Your task to perform on an android device: open a new tab in the chrome app Image 0: 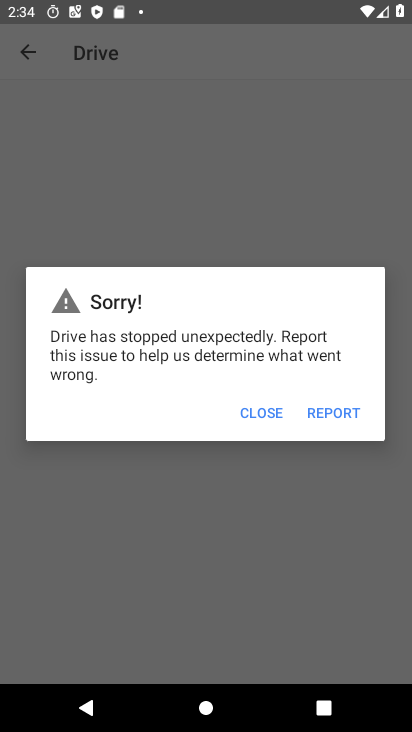
Step 0: press home button
Your task to perform on an android device: open a new tab in the chrome app Image 1: 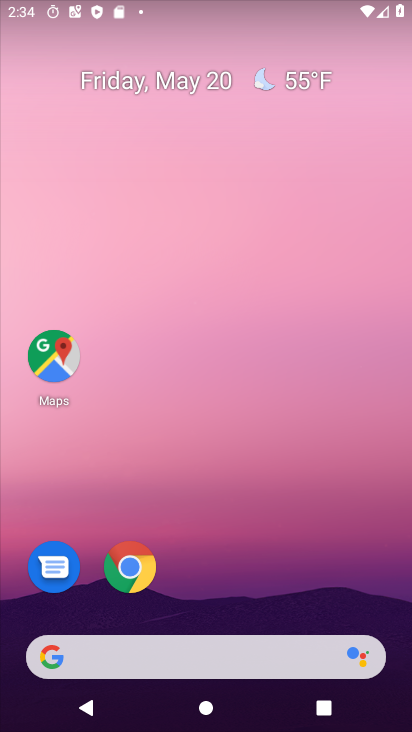
Step 1: drag from (175, 632) to (202, 331)
Your task to perform on an android device: open a new tab in the chrome app Image 2: 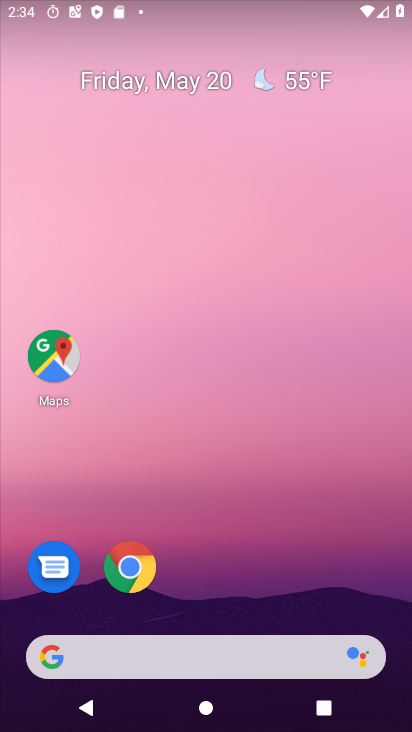
Step 2: drag from (201, 465) to (158, 76)
Your task to perform on an android device: open a new tab in the chrome app Image 3: 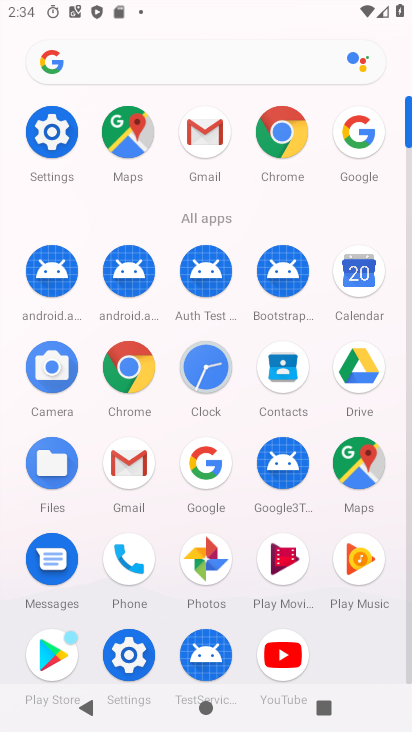
Step 3: click (288, 137)
Your task to perform on an android device: open a new tab in the chrome app Image 4: 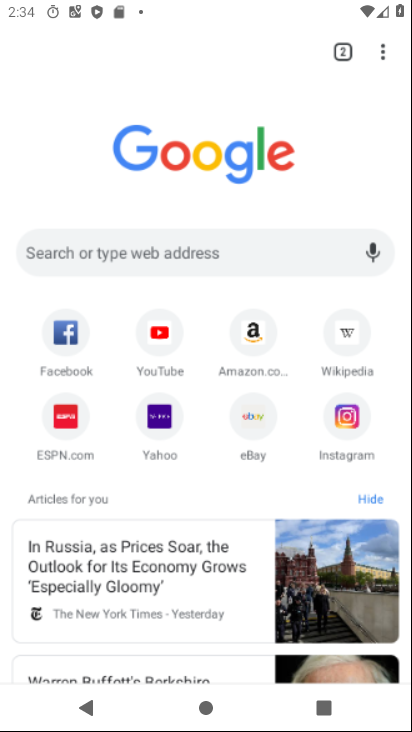
Step 4: click (375, 52)
Your task to perform on an android device: open a new tab in the chrome app Image 5: 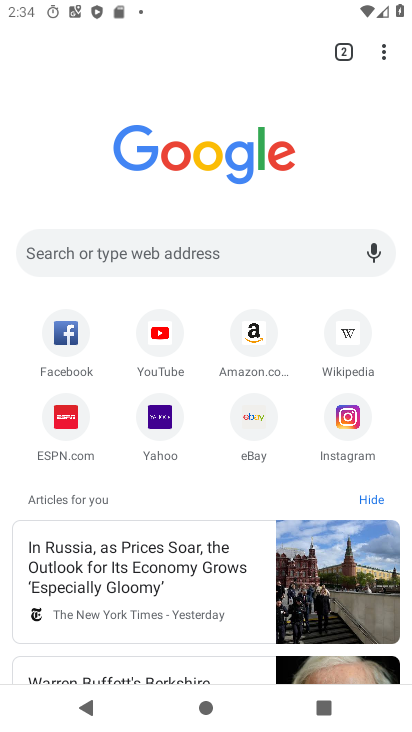
Step 5: click (391, 60)
Your task to perform on an android device: open a new tab in the chrome app Image 6: 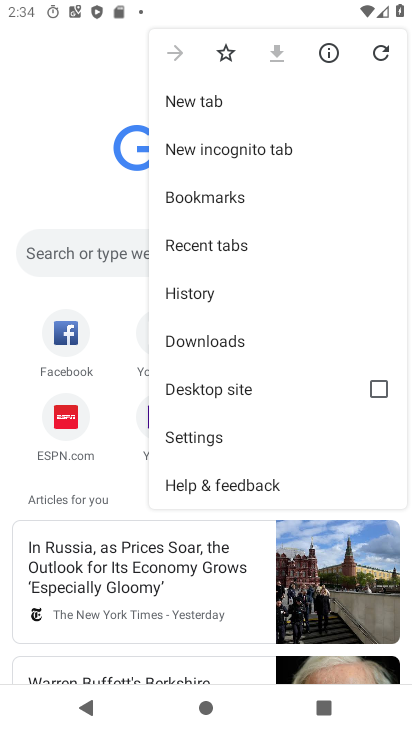
Step 6: click (204, 104)
Your task to perform on an android device: open a new tab in the chrome app Image 7: 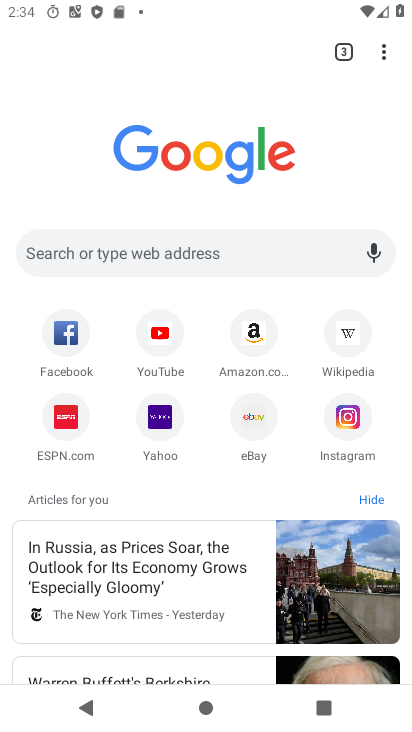
Step 7: task complete